Your task to perform on an android device: move a message to another label in the gmail app Image 0: 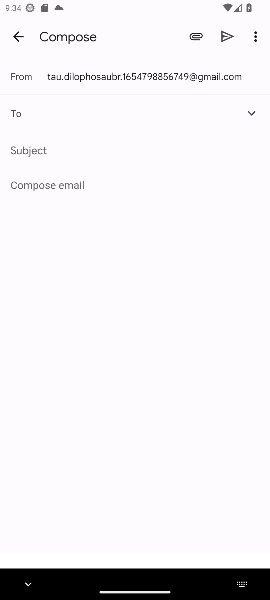
Step 0: press back button
Your task to perform on an android device: move a message to another label in the gmail app Image 1: 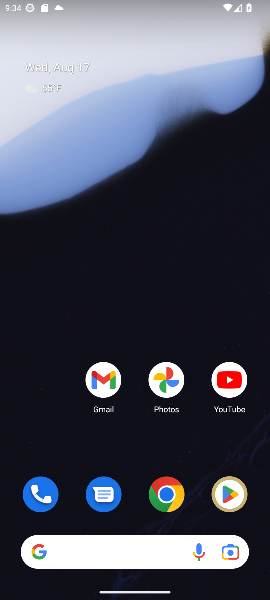
Step 1: click (166, 36)
Your task to perform on an android device: move a message to another label in the gmail app Image 2: 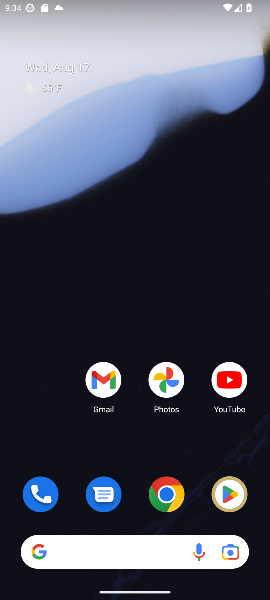
Step 2: drag from (131, 411) to (148, 50)
Your task to perform on an android device: move a message to another label in the gmail app Image 3: 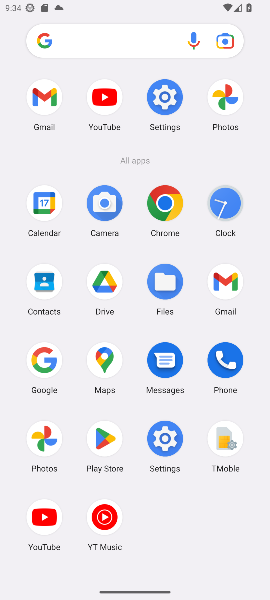
Step 3: click (232, 282)
Your task to perform on an android device: move a message to another label in the gmail app Image 4: 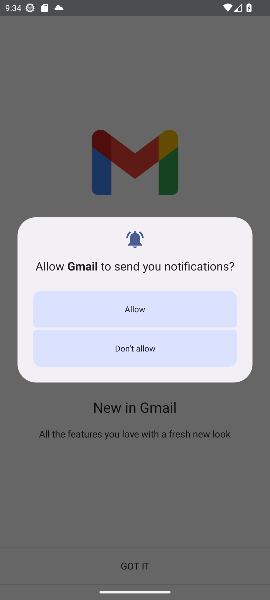
Step 4: click (156, 338)
Your task to perform on an android device: move a message to another label in the gmail app Image 5: 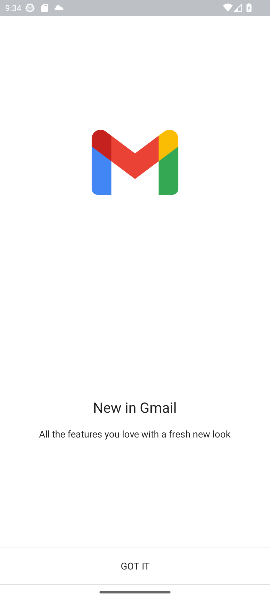
Step 5: click (124, 571)
Your task to perform on an android device: move a message to another label in the gmail app Image 6: 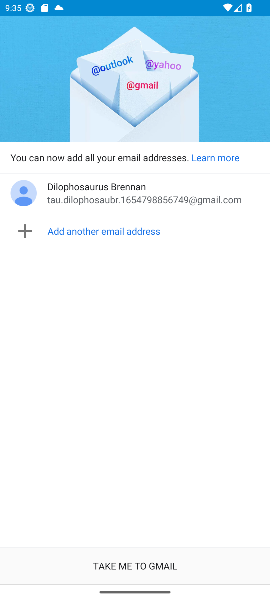
Step 6: click (137, 573)
Your task to perform on an android device: move a message to another label in the gmail app Image 7: 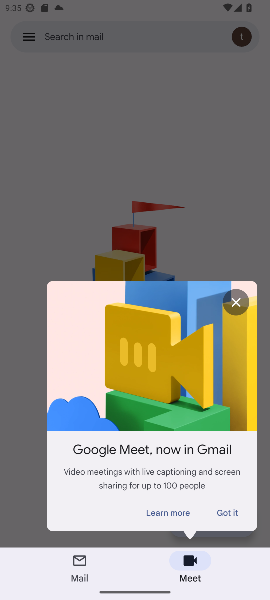
Step 7: click (232, 297)
Your task to perform on an android device: move a message to another label in the gmail app Image 8: 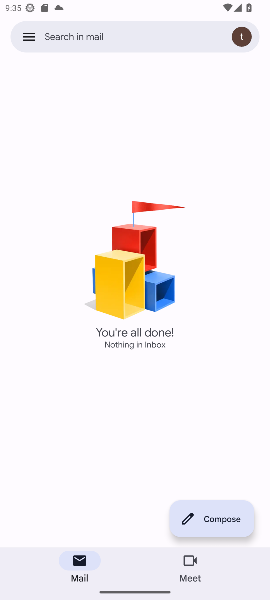
Step 8: click (23, 29)
Your task to perform on an android device: move a message to another label in the gmail app Image 9: 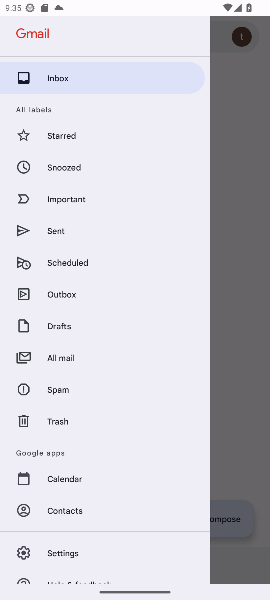
Step 9: click (68, 356)
Your task to perform on an android device: move a message to another label in the gmail app Image 10: 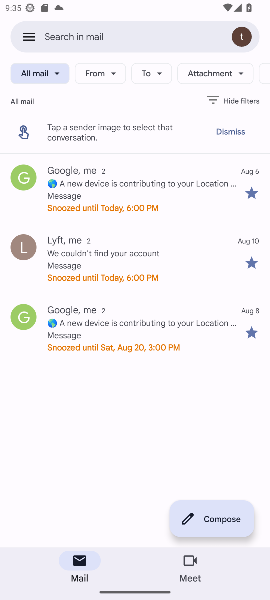
Step 10: click (109, 244)
Your task to perform on an android device: move a message to another label in the gmail app Image 11: 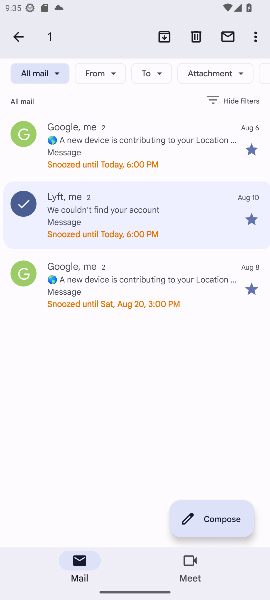
Step 11: click (252, 38)
Your task to perform on an android device: move a message to another label in the gmail app Image 12: 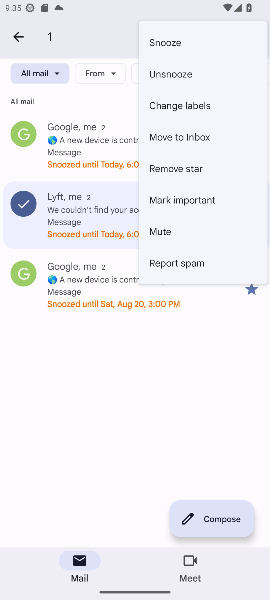
Step 12: click (174, 118)
Your task to perform on an android device: move a message to another label in the gmail app Image 13: 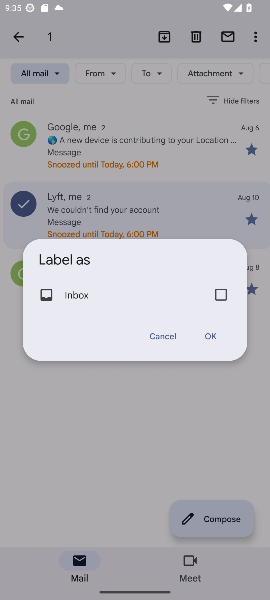
Step 13: click (219, 294)
Your task to perform on an android device: move a message to another label in the gmail app Image 14: 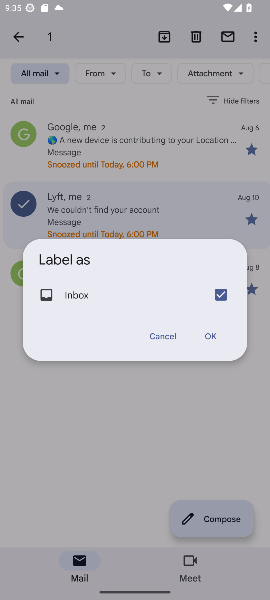
Step 14: click (201, 342)
Your task to perform on an android device: move a message to another label in the gmail app Image 15: 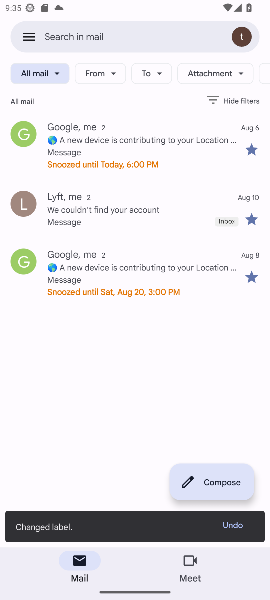
Step 15: task complete